Your task to perform on an android device: What's the weather going to be tomorrow? Image 0: 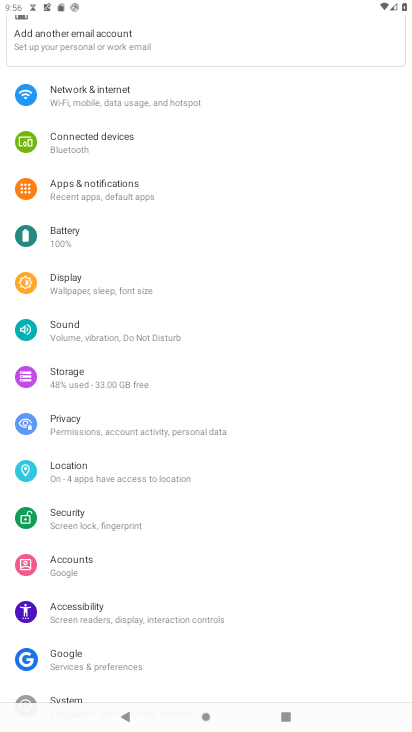
Step 0: press home button
Your task to perform on an android device: What's the weather going to be tomorrow? Image 1: 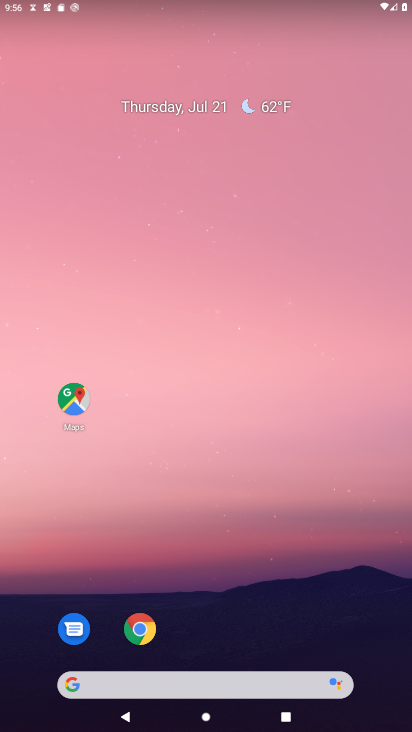
Step 1: drag from (205, 635) to (227, 263)
Your task to perform on an android device: What's the weather going to be tomorrow? Image 2: 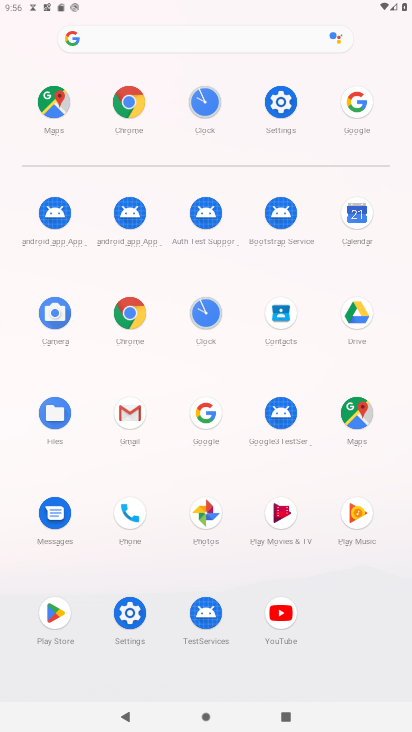
Step 2: click (125, 109)
Your task to perform on an android device: What's the weather going to be tomorrow? Image 3: 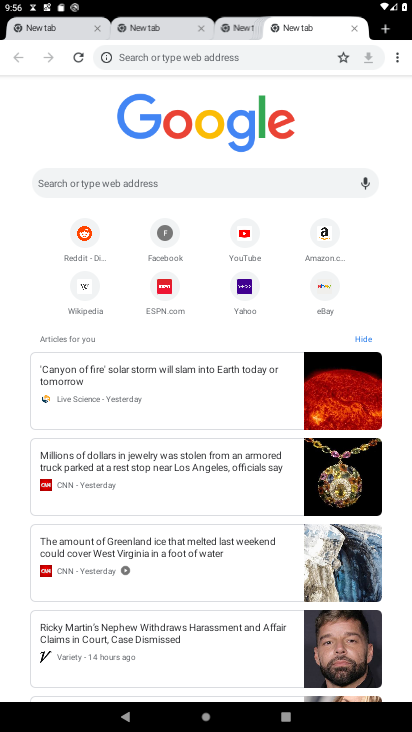
Step 3: click (165, 183)
Your task to perform on an android device: What's the weather going to be tomorrow? Image 4: 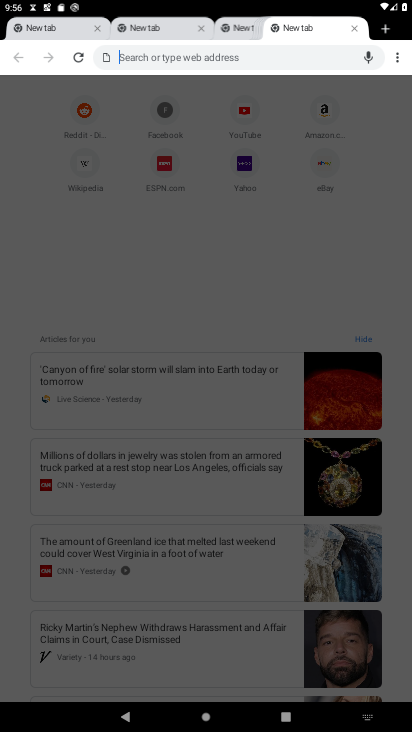
Step 4: type "What's the weather going to be tomorrow? "
Your task to perform on an android device: What's the weather going to be tomorrow? Image 5: 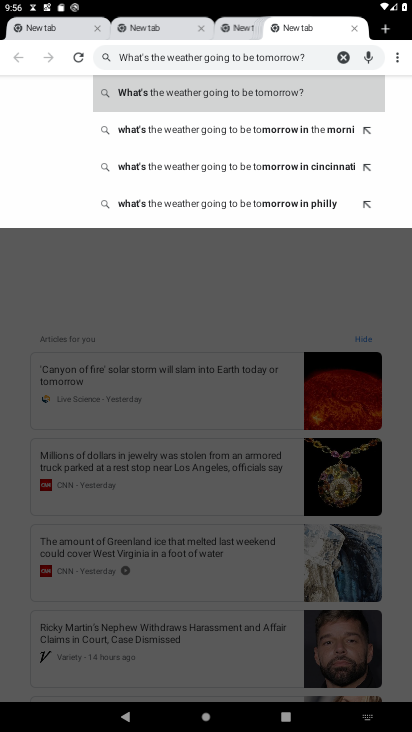
Step 5: click (242, 102)
Your task to perform on an android device: What's the weather going to be tomorrow? Image 6: 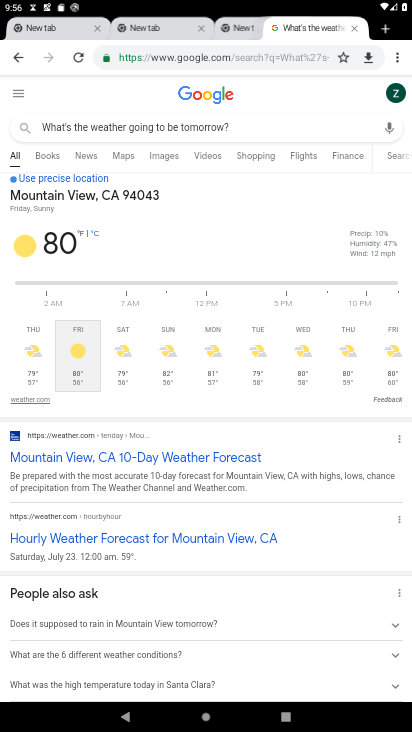
Step 6: task complete